Your task to perform on an android device: Empty the shopping cart on ebay. Search for "bose soundlink" on ebay, select the first entry, and add it to the cart. Image 0: 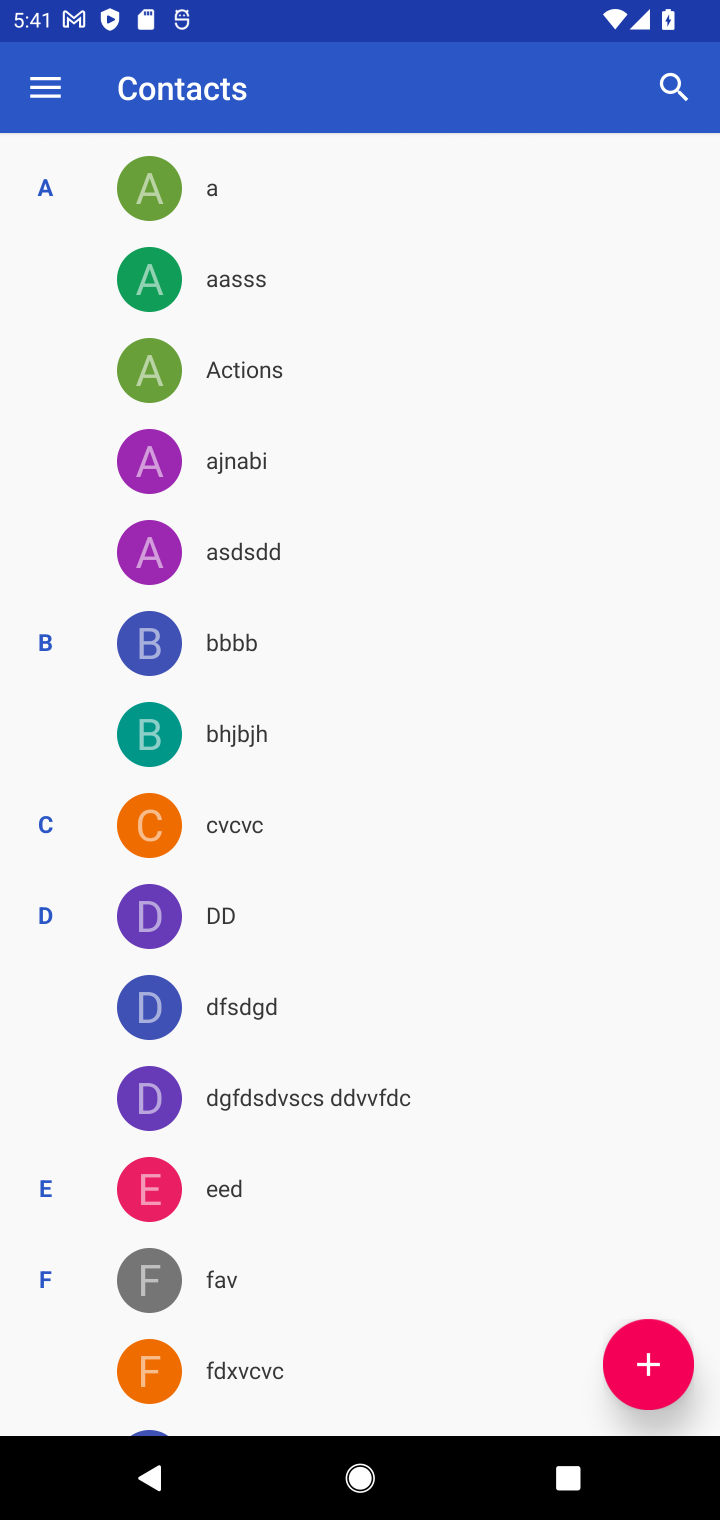
Step 0: press home button
Your task to perform on an android device: Empty the shopping cart on ebay. Search for "bose soundlink" on ebay, select the first entry, and add it to the cart. Image 1: 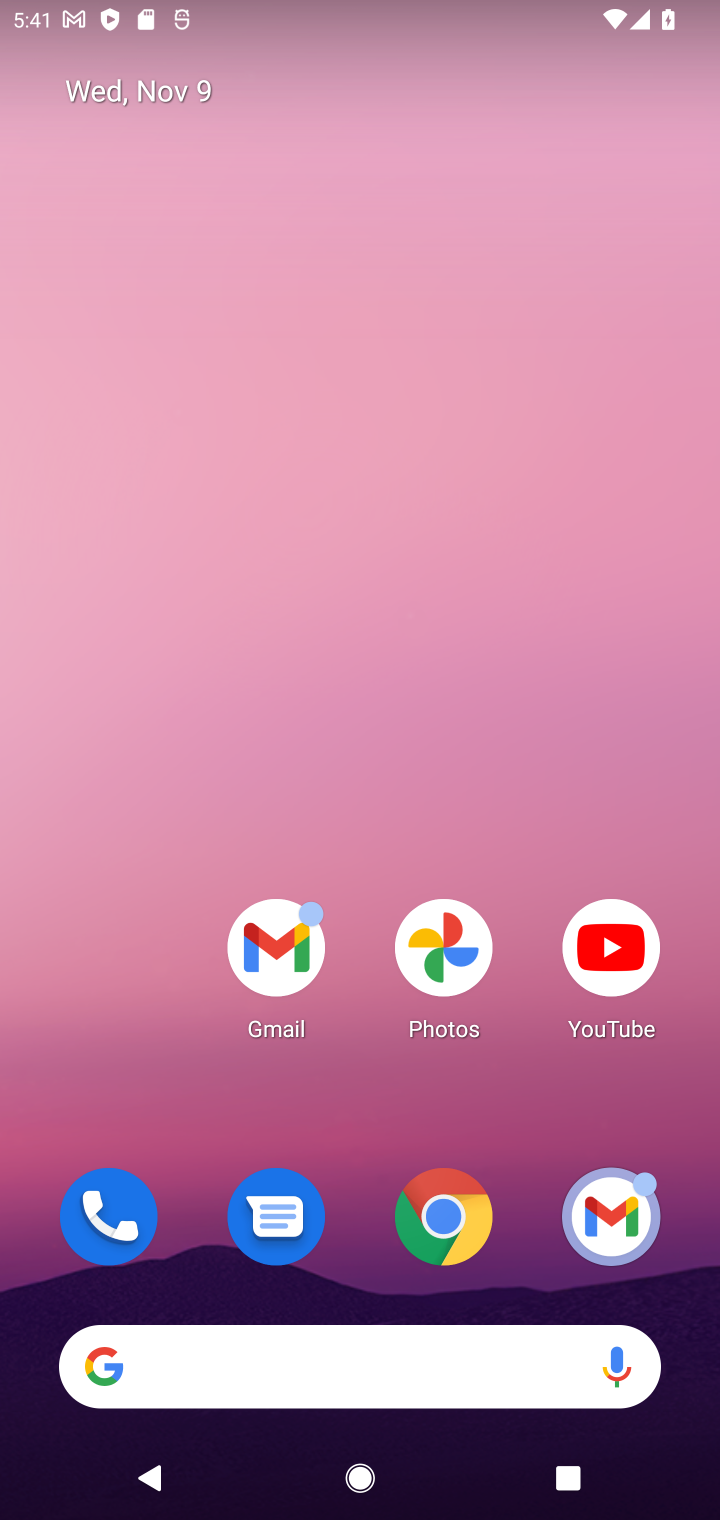
Step 1: drag from (365, 1146) to (370, 98)
Your task to perform on an android device: Empty the shopping cart on ebay. Search for "bose soundlink" on ebay, select the first entry, and add it to the cart. Image 2: 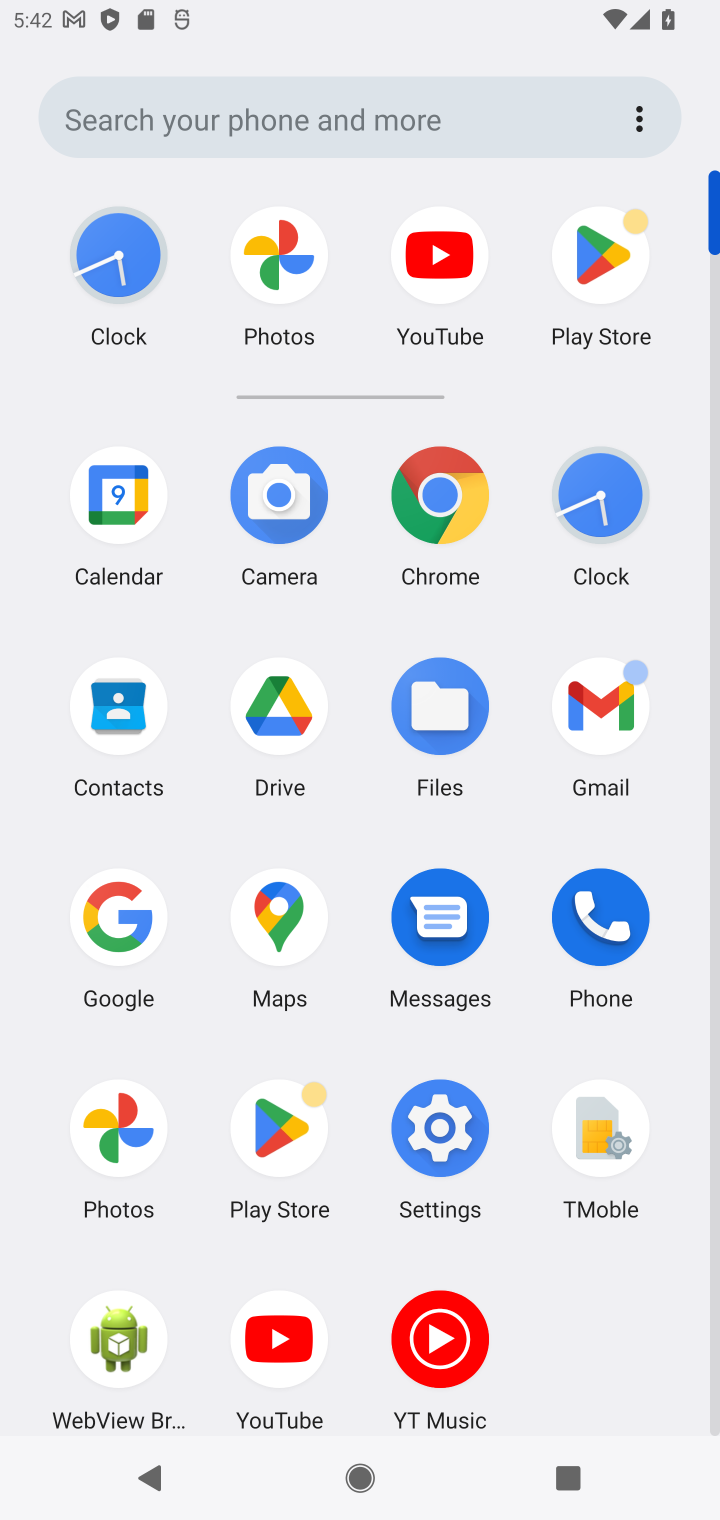
Step 2: click (432, 505)
Your task to perform on an android device: Empty the shopping cart on ebay. Search for "bose soundlink" on ebay, select the first entry, and add it to the cart. Image 3: 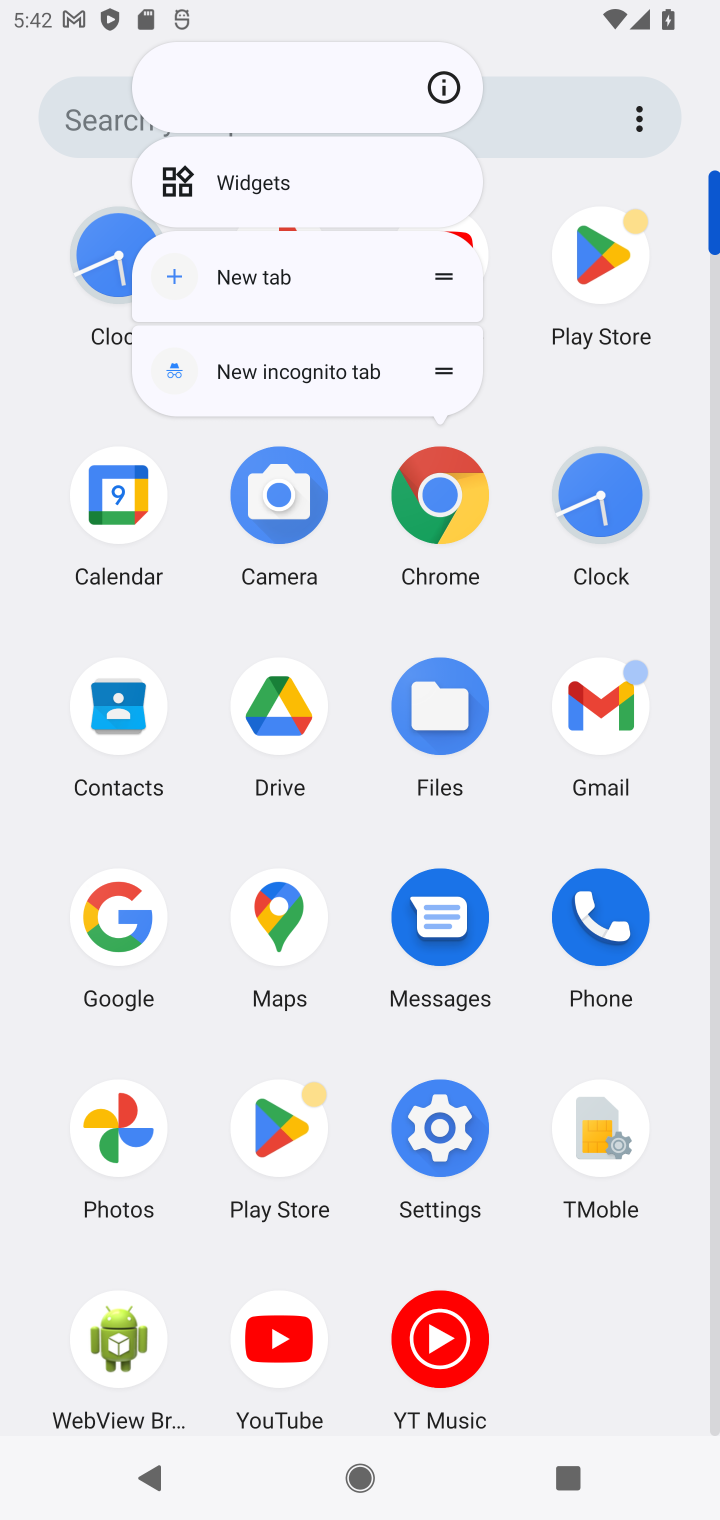
Step 3: click (441, 505)
Your task to perform on an android device: Empty the shopping cart on ebay. Search for "bose soundlink" on ebay, select the first entry, and add it to the cart. Image 4: 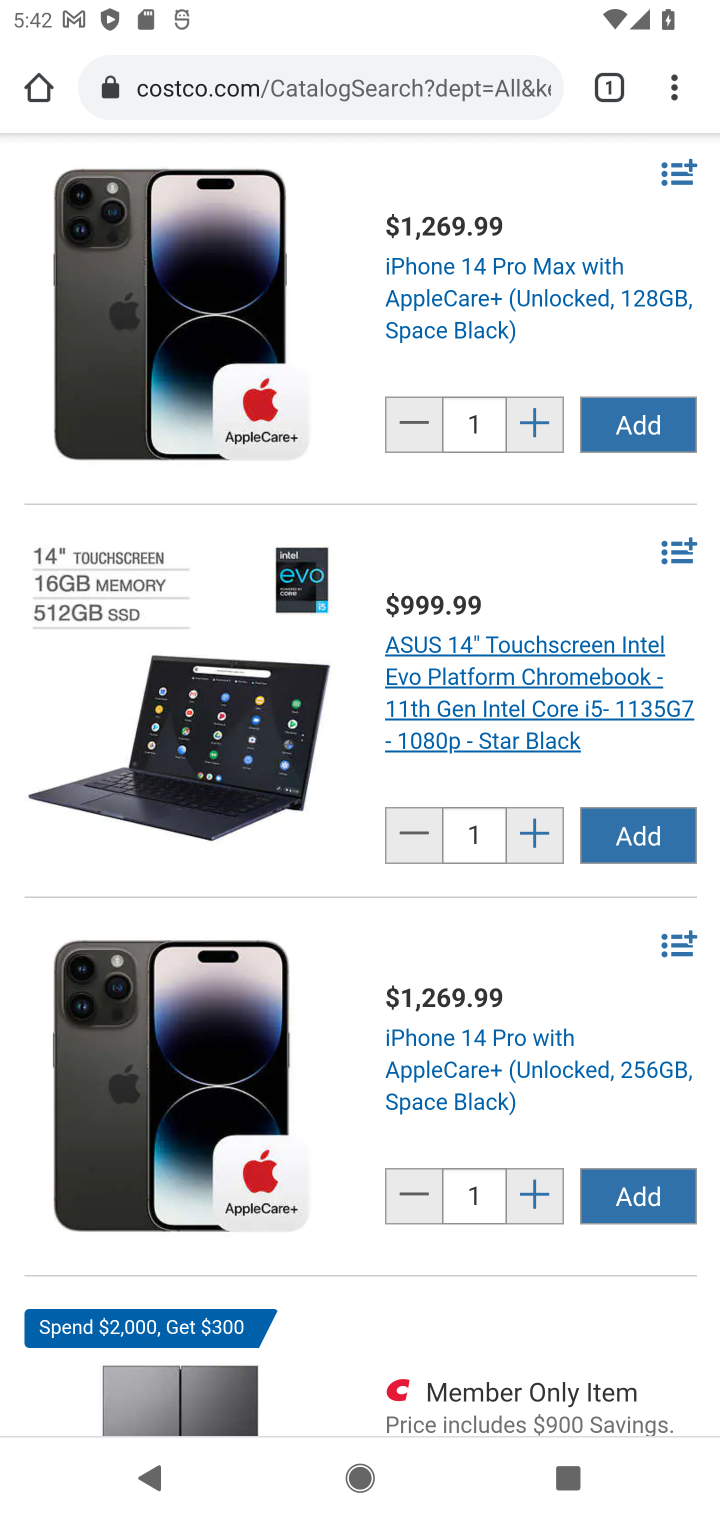
Step 4: click (346, 76)
Your task to perform on an android device: Empty the shopping cart on ebay. Search for "bose soundlink" on ebay, select the first entry, and add it to the cart. Image 5: 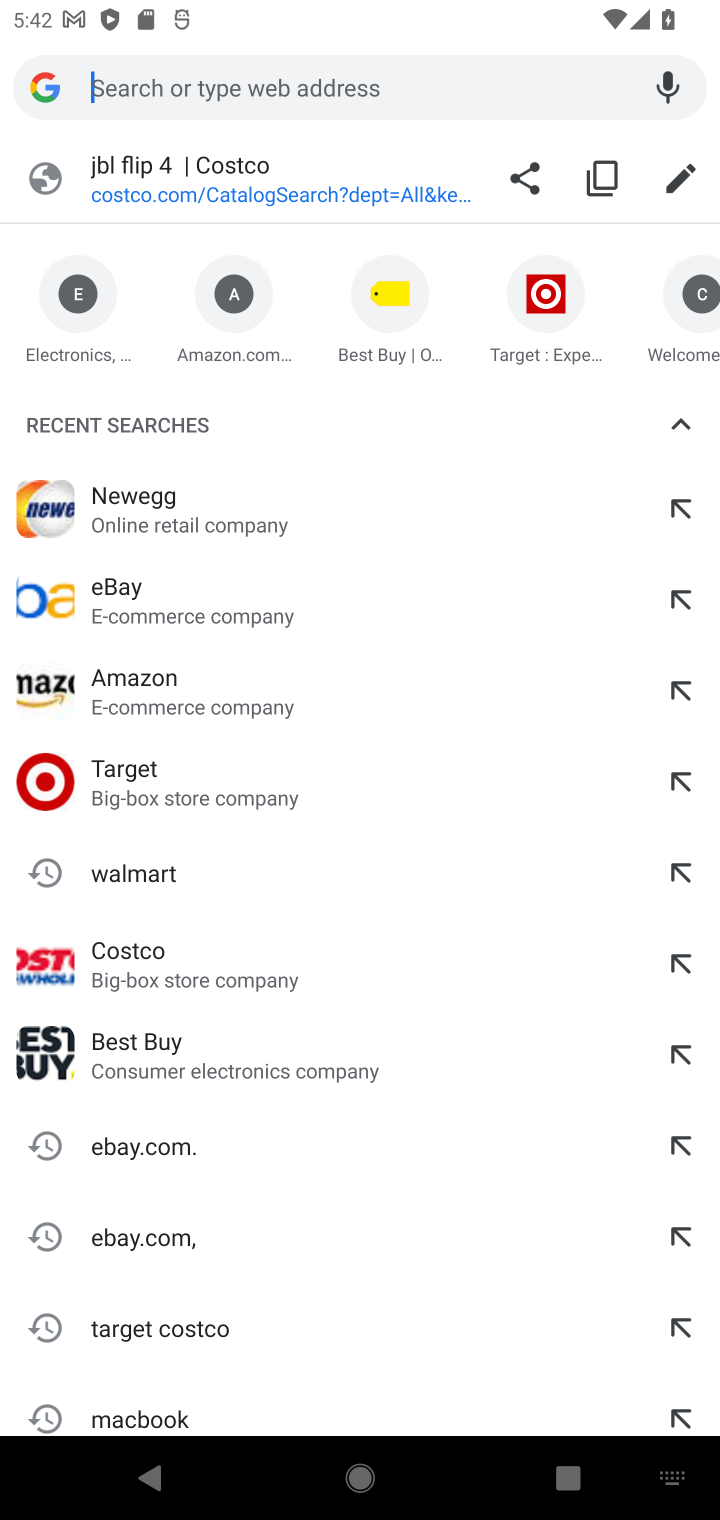
Step 5: type "ebay.com"
Your task to perform on an android device: Empty the shopping cart on ebay. Search for "bose soundlink" on ebay, select the first entry, and add it to the cart. Image 6: 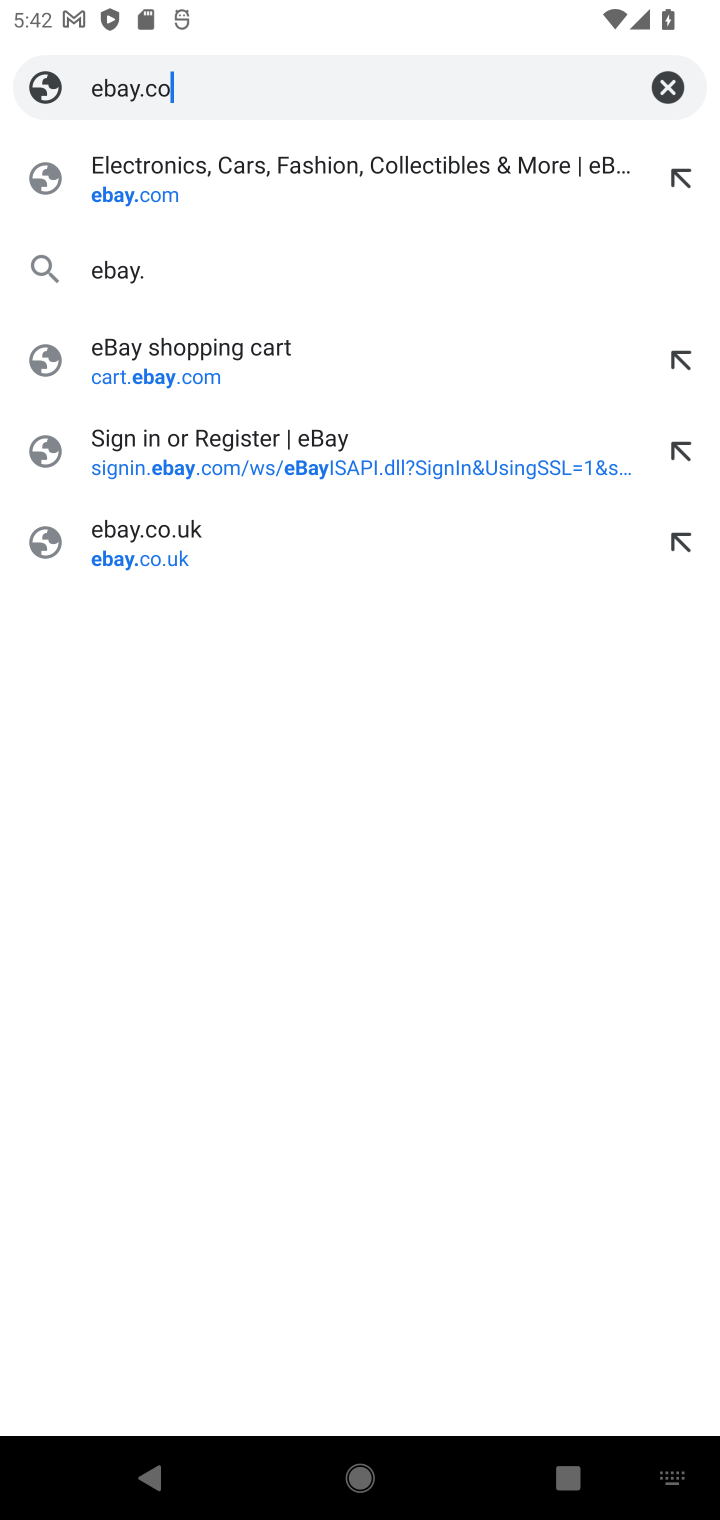
Step 6: press enter
Your task to perform on an android device: Empty the shopping cart on ebay. Search for "bose soundlink" on ebay, select the first entry, and add it to the cart. Image 7: 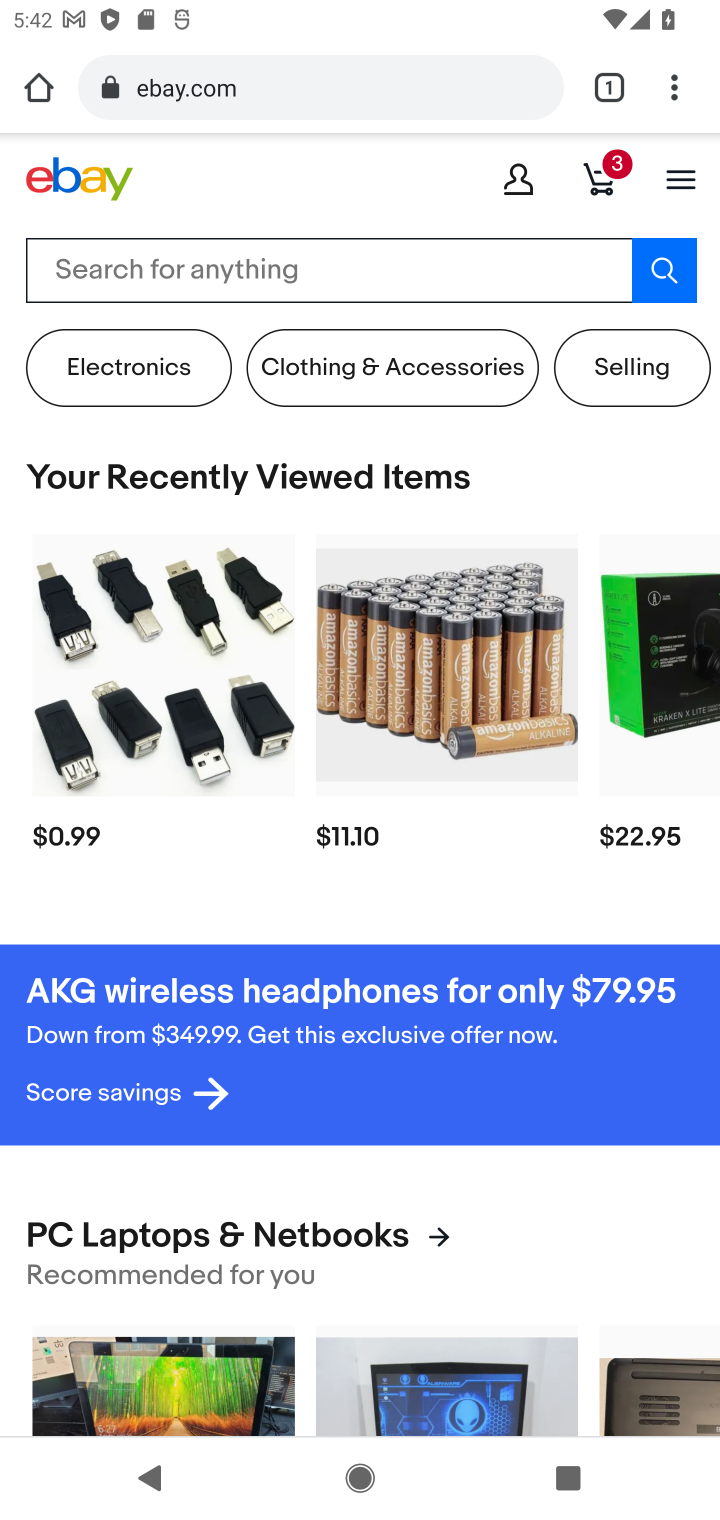
Step 7: click (613, 178)
Your task to perform on an android device: Empty the shopping cart on ebay. Search for "bose soundlink" on ebay, select the first entry, and add it to the cart. Image 8: 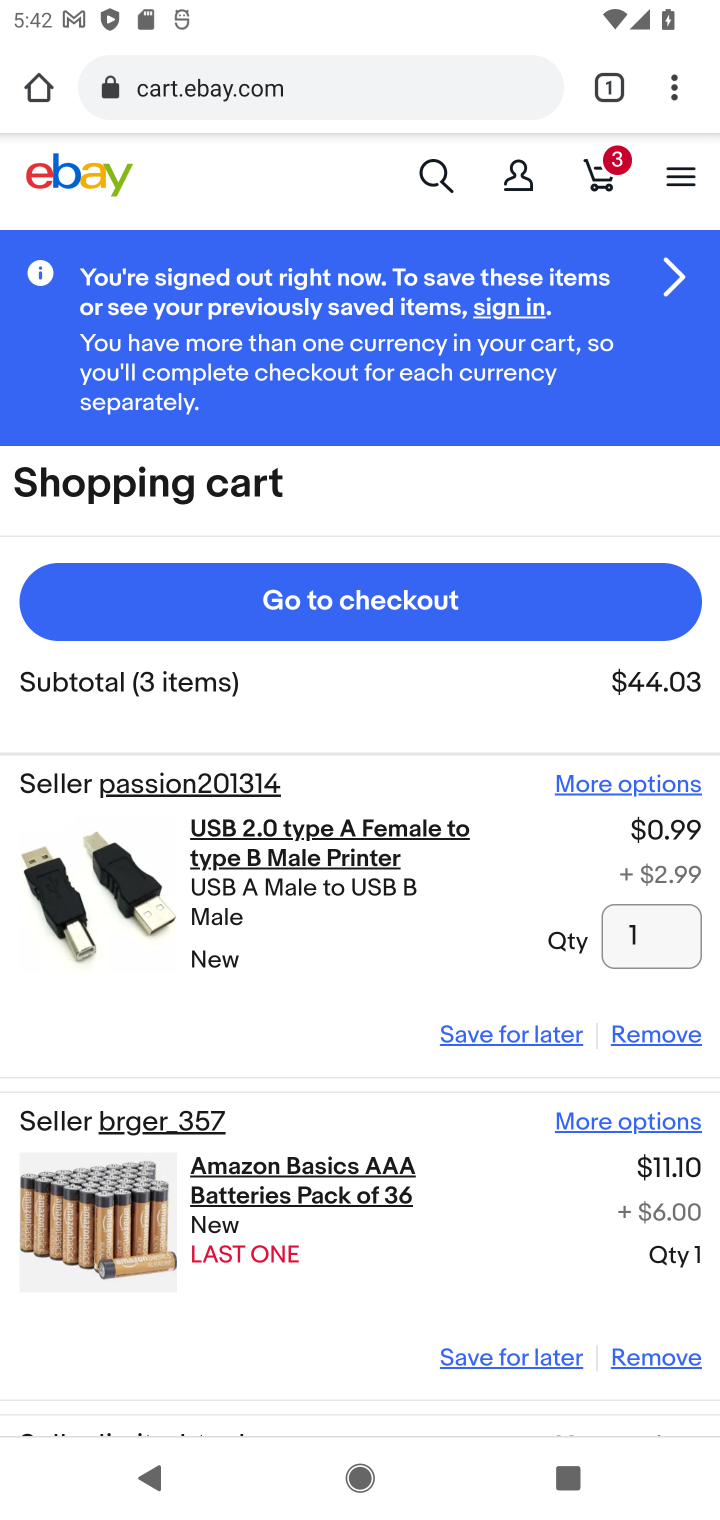
Step 8: click (647, 1037)
Your task to perform on an android device: Empty the shopping cart on ebay. Search for "bose soundlink" on ebay, select the first entry, and add it to the cart. Image 9: 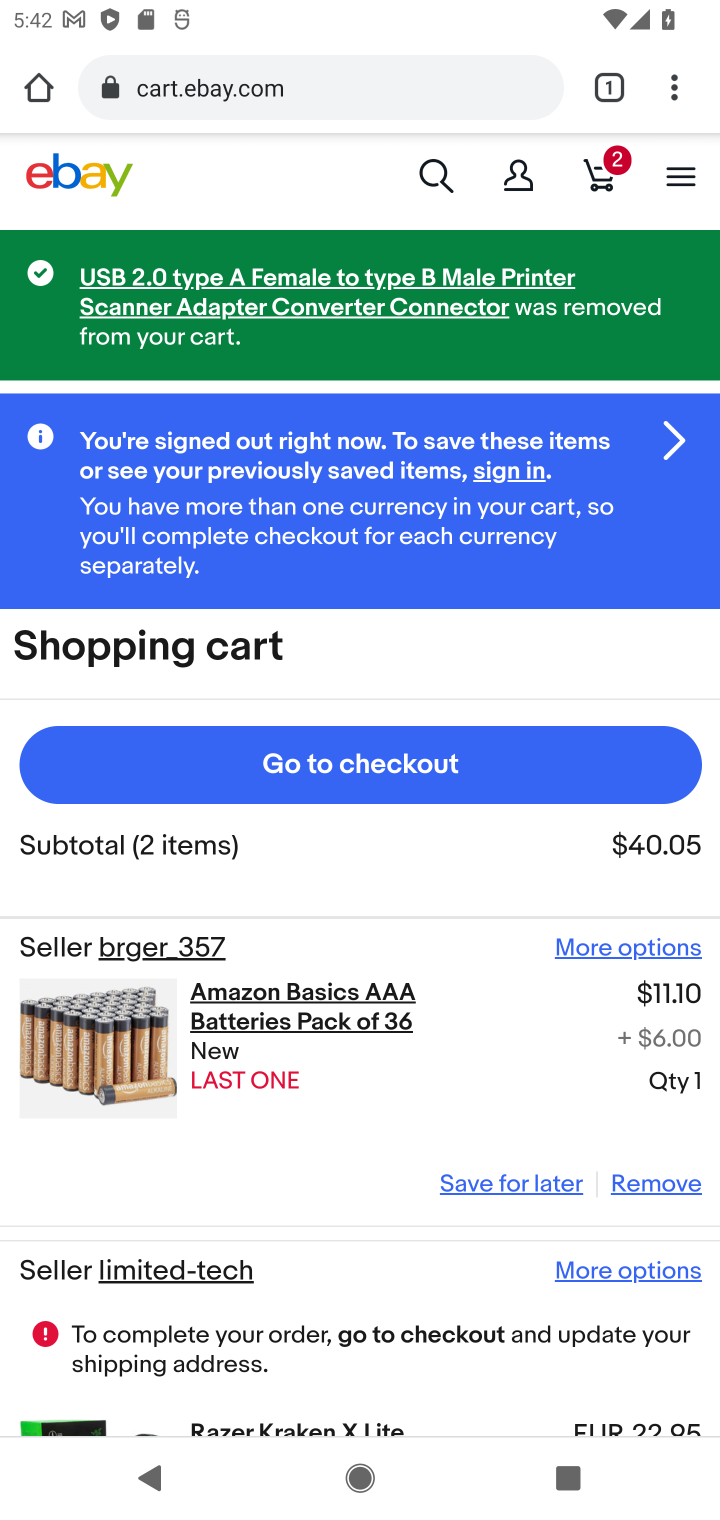
Step 9: click (649, 1186)
Your task to perform on an android device: Empty the shopping cart on ebay. Search for "bose soundlink" on ebay, select the first entry, and add it to the cart. Image 10: 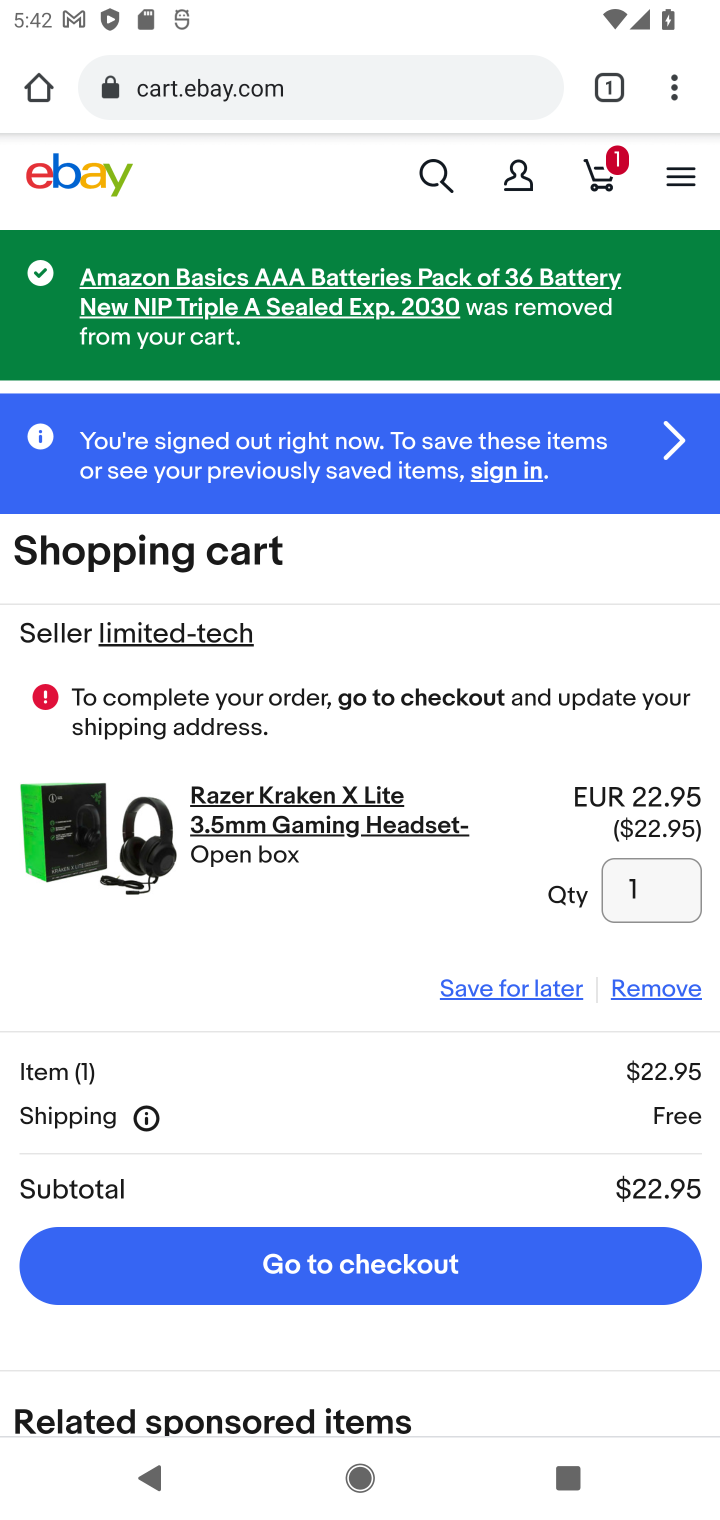
Step 10: click (655, 980)
Your task to perform on an android device: Empty the shopping cart on ebay. Search for "bose soundlink" on ebay, select the first entry, and add it to the cart. Image 11: 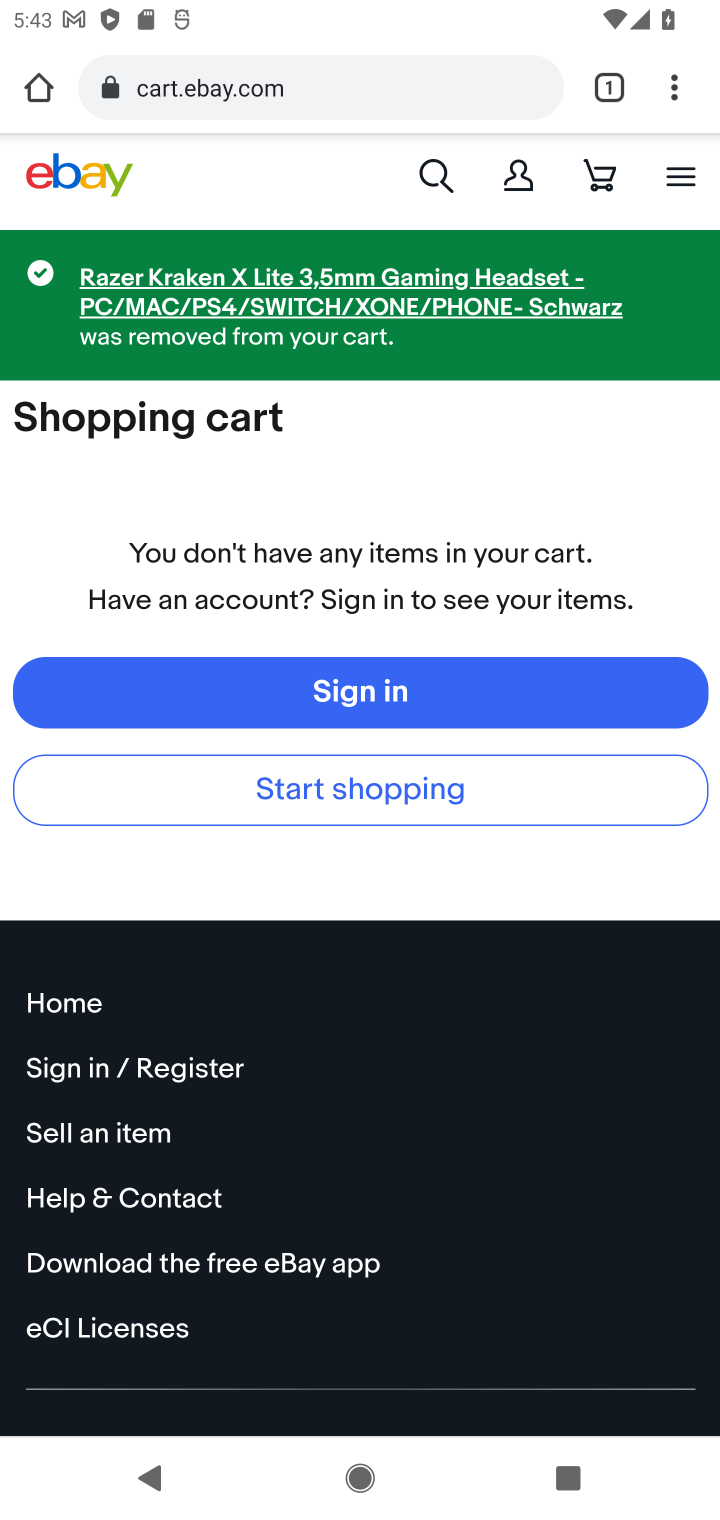
Step 11: click (436, 165)
Your task to perform on an android device: Empty the shopping cart on ebay. Search for "bose soundlink" on ebay, select the first entry, and add it to the cart. Image 12: 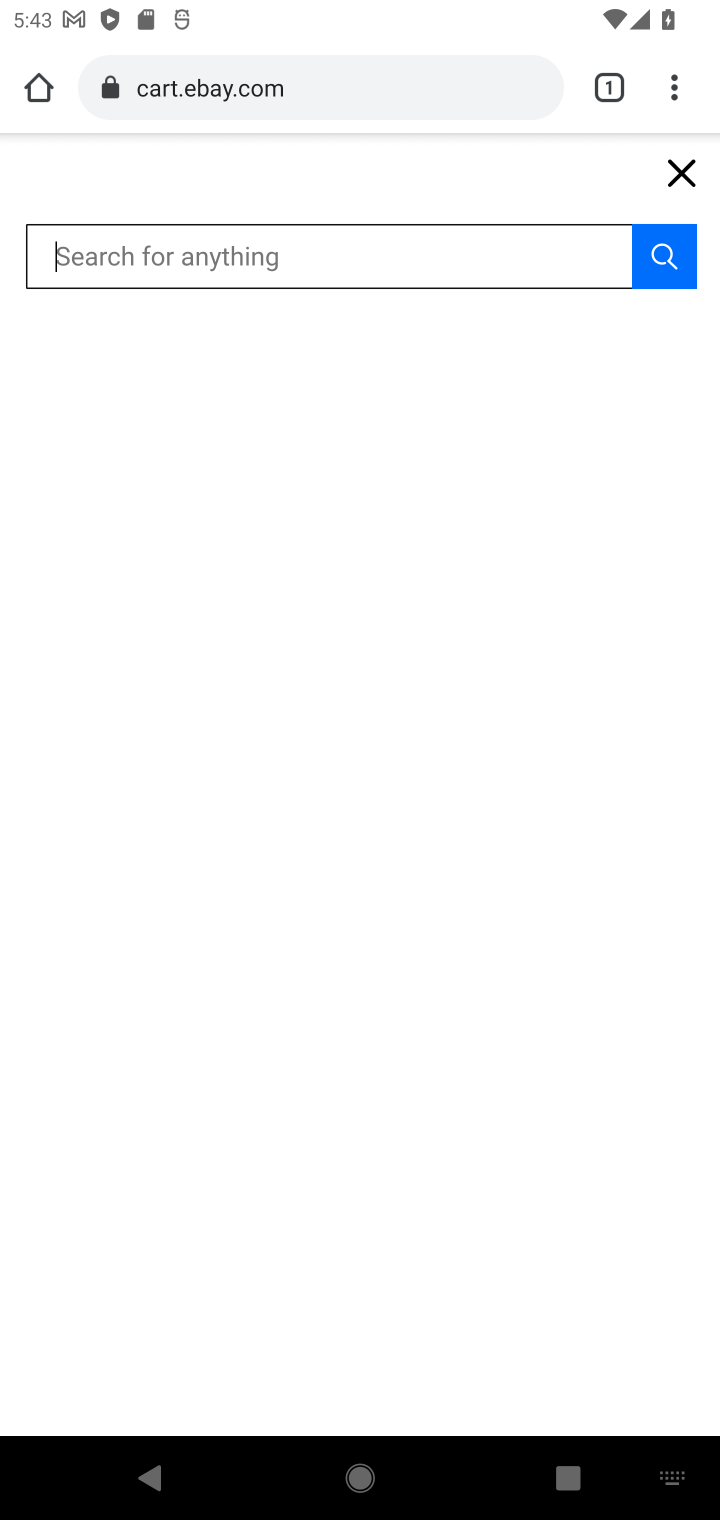
Step 12: type "bose soundlink"
Your task to perform on an android device: Empty the shopping cart on ebay. Search for "bose soundlink" on ebay, select the first entry, and add it to the cart. Image 13: 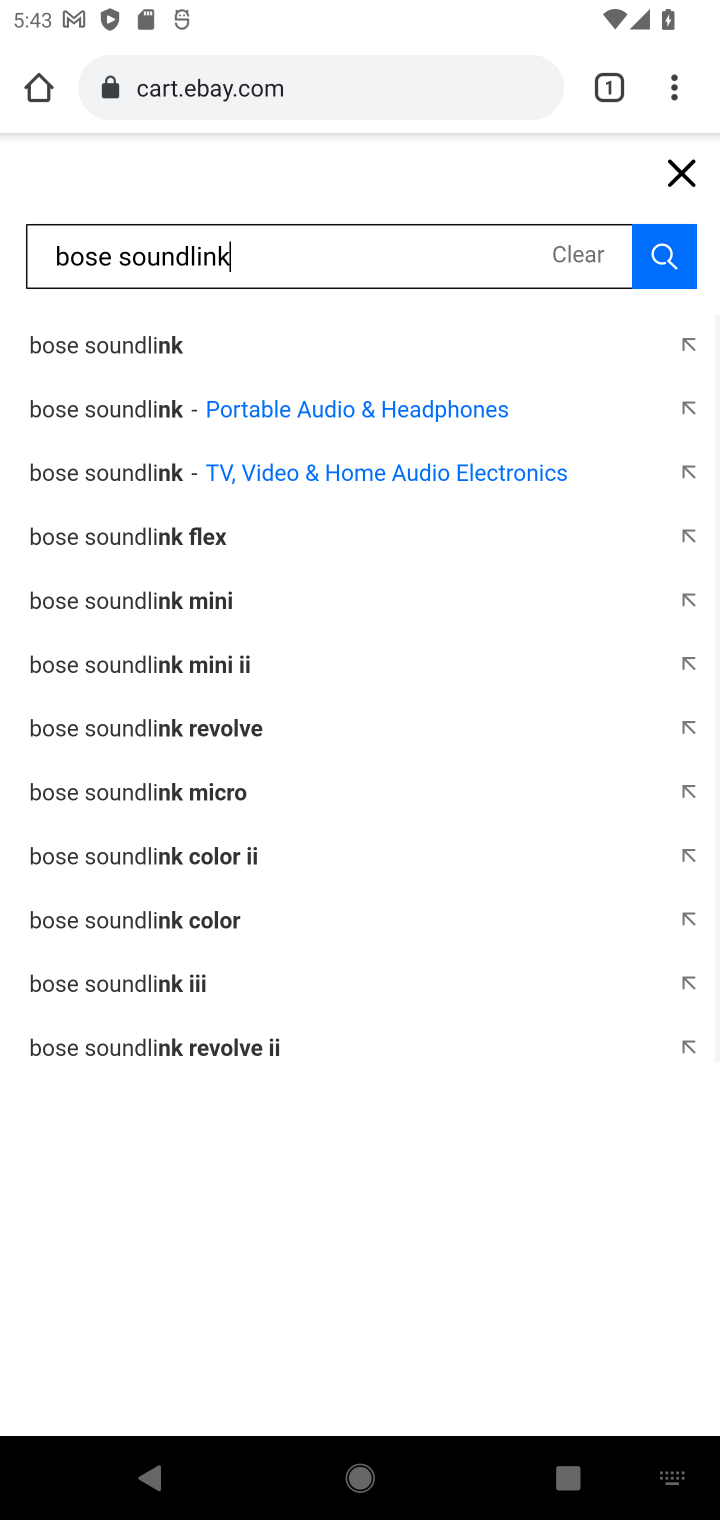
Step 13: press enter
Your task to perform on an android device: Empty the shopping cart on ebay. Search for "bose soundlink" on ebay, select the first entry, and add it to the cart. Image 14: 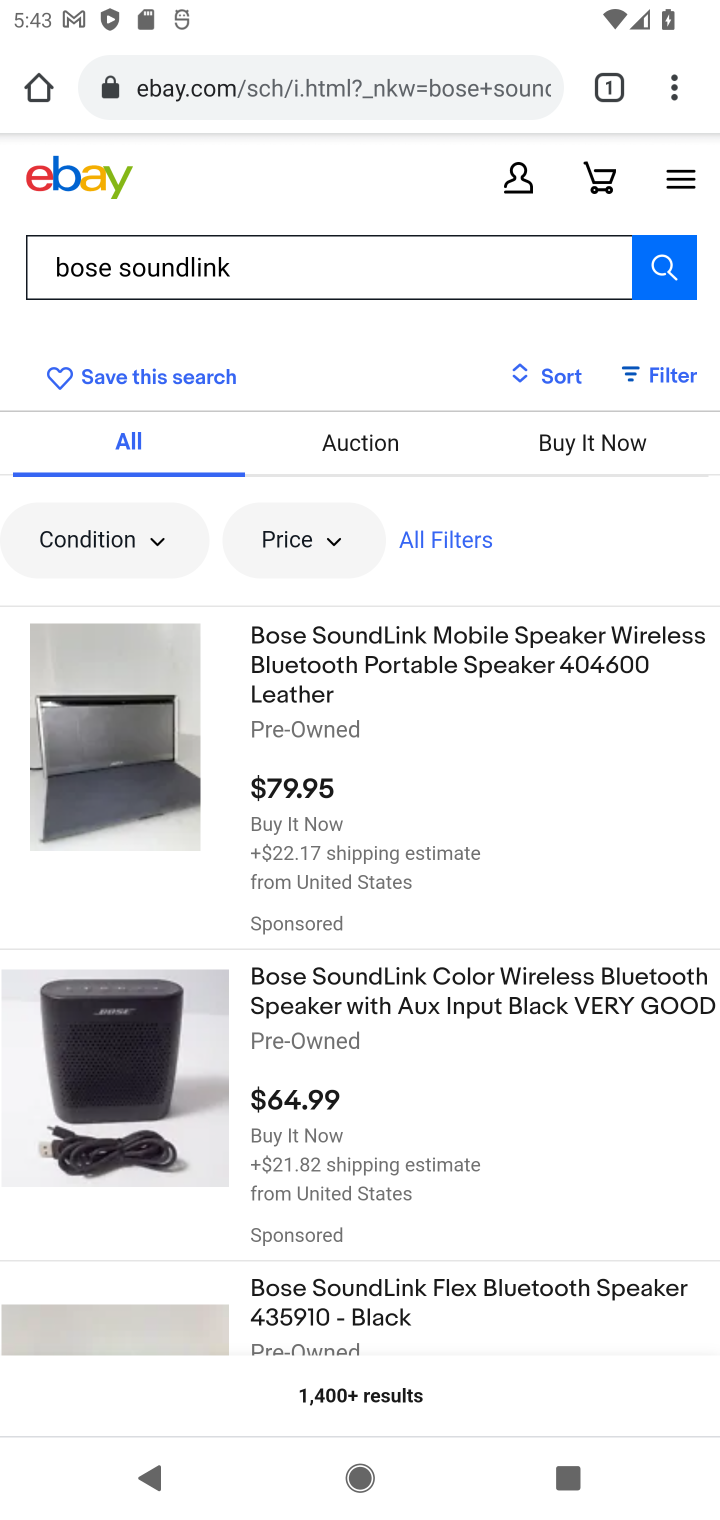
Step 14: click (356, 653)
Your task to perform on an android device: Empty the shopping cart on ebay. Search for "bose soundlink" on ebay, select the first entry, and add it to the cart. Image 15: 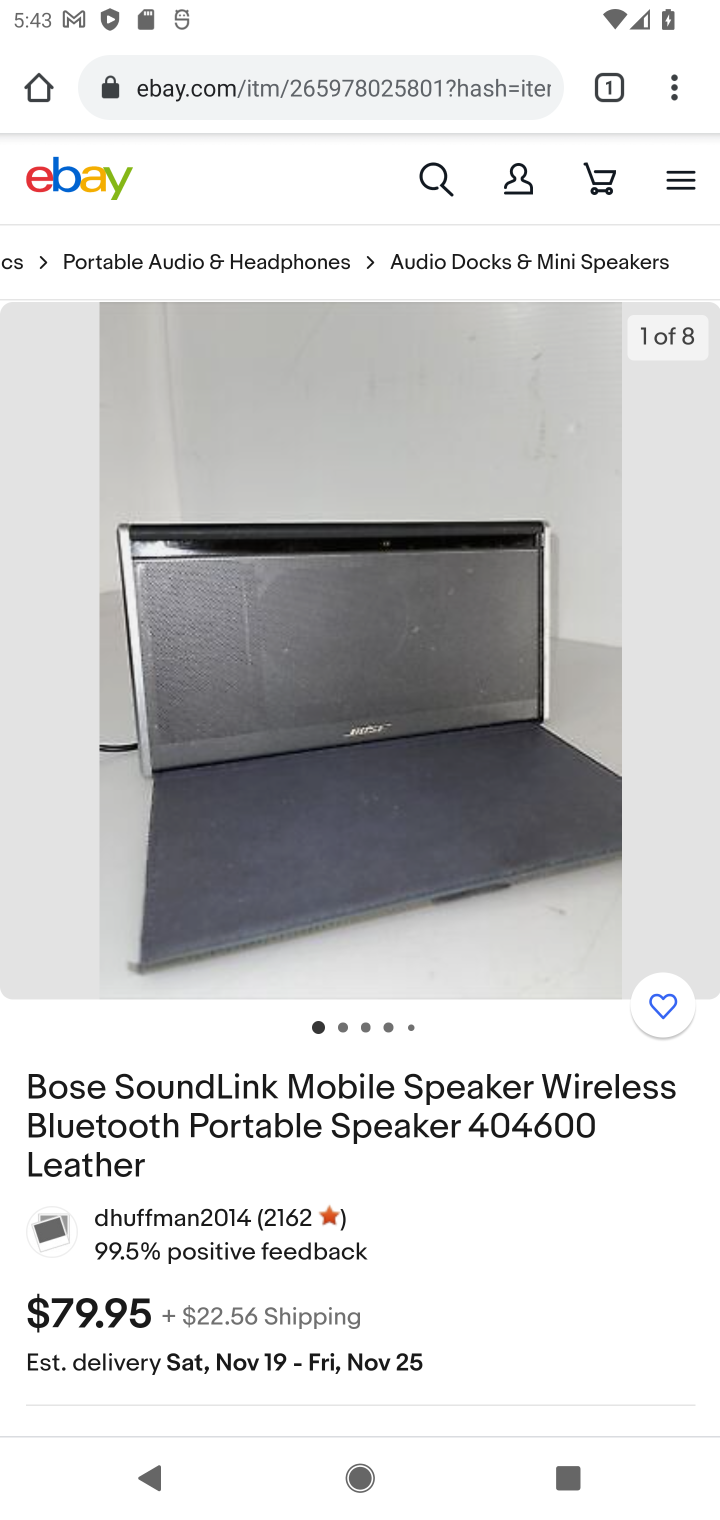
Step 15: drag from (519, 1174) to (353, 516)
Your task to perform on an android device: Empty the shopping cart on ebay. Search for "bose soundlink" on ebay, select the first entry, and add it to the cart. Image 16: 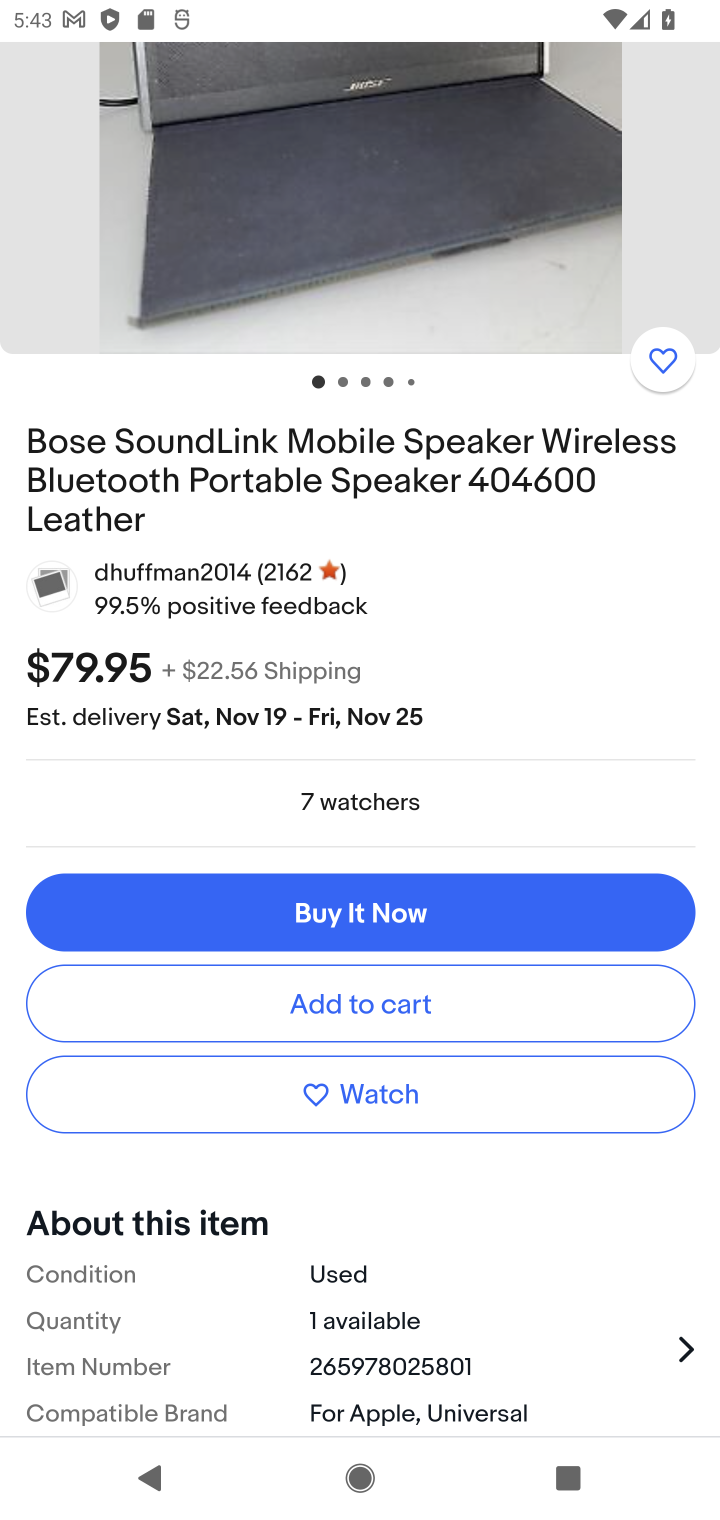
Step 16: click (459, 996)
Your task to perform on an android device: Empty the shopping cart on ebay. Search for "bose soundlink" on ebay, select the first entry, and add it to the cart. Image 17: 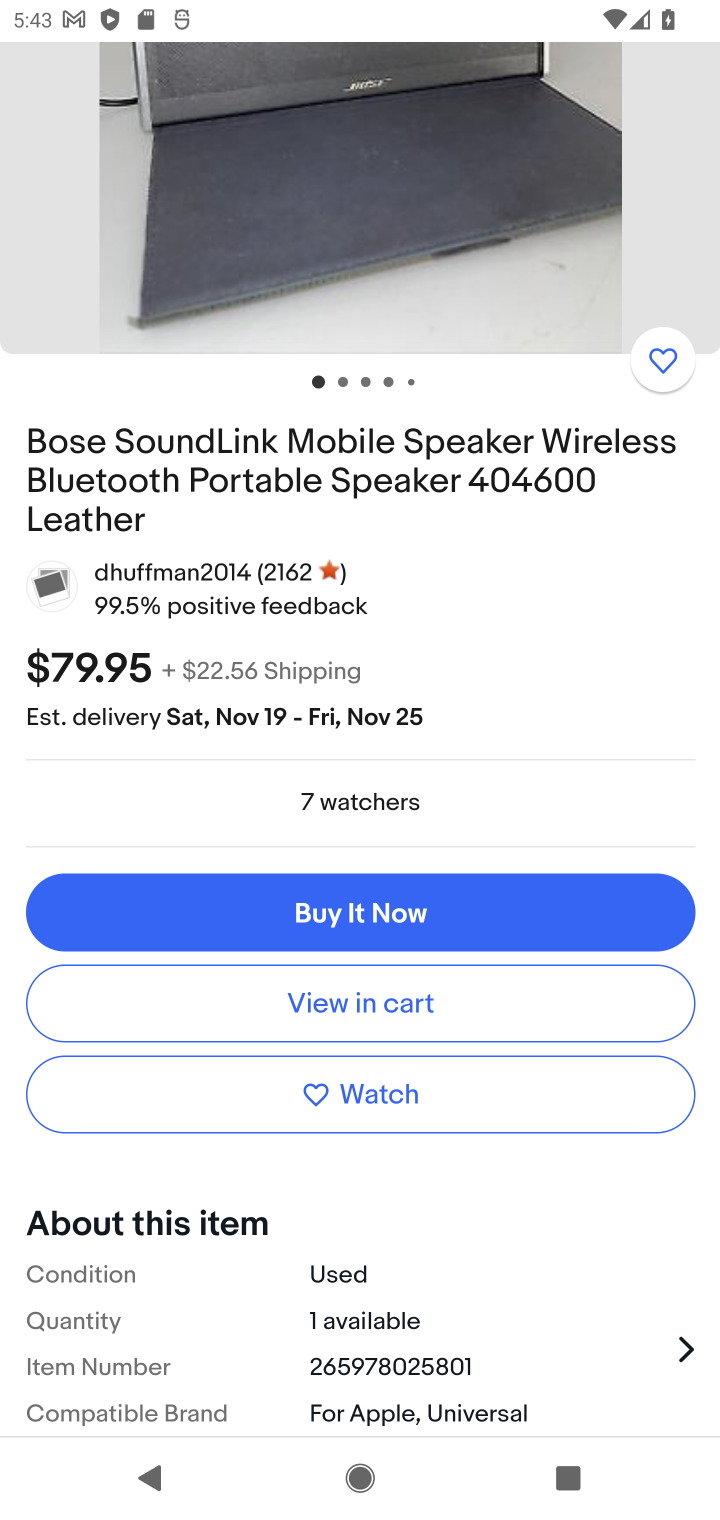
Step 17: task complete